Your task to perform on an android device: see tabs open on other devices in the chrome app Image 0: 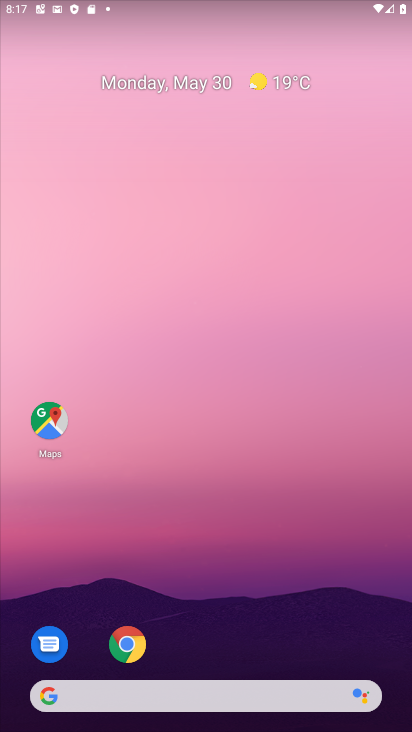
Step 0: drag from (193, 663) to (179, 0)
Your task to perform on an android device: see tabs open on other devices in the chrome app Image 1: 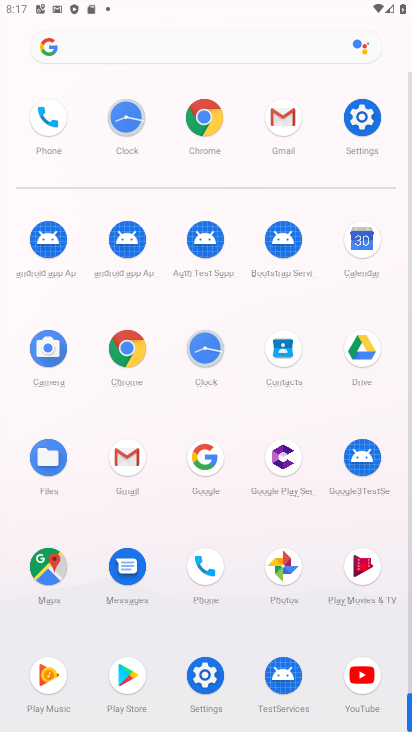
Step 1: click (120, 350)
Your task to perform on an android device: see tabs open on other devices in the chrome app Image 2: 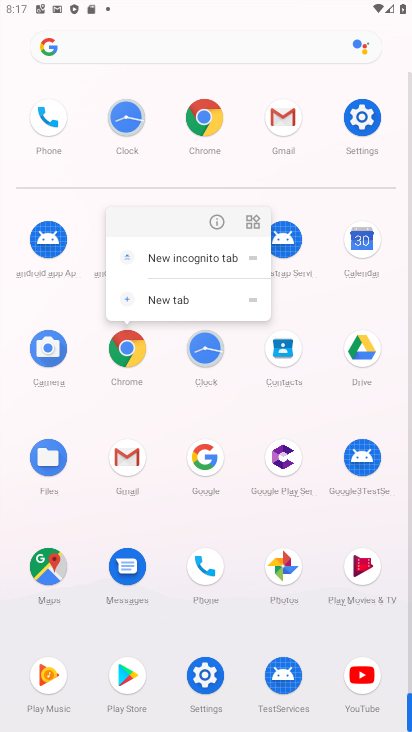
Step 2: click (215, 223)
Your task to perform on an android device: see tabs open on other devices in the chrome app Image 3: 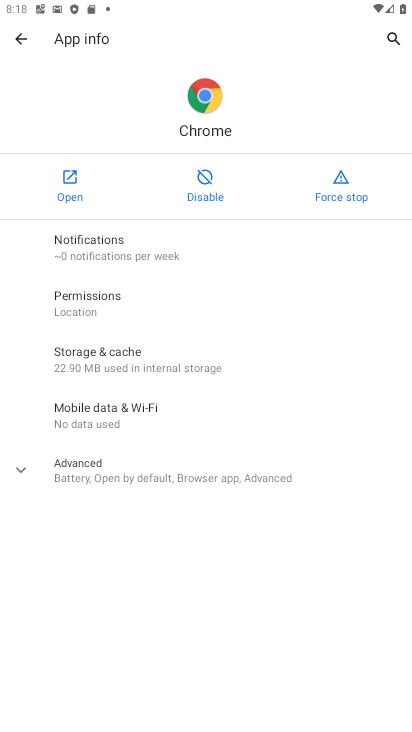
Step 3: click (69, 197)
Your task to perform on an android device: see tabs open on other devices in the chrome app Image 4: 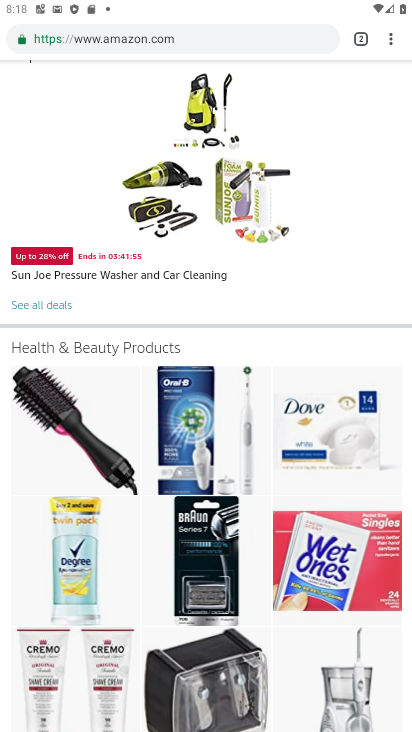
Step 4: task complete